Your task to perform on an android device: show emergency info Image 0: 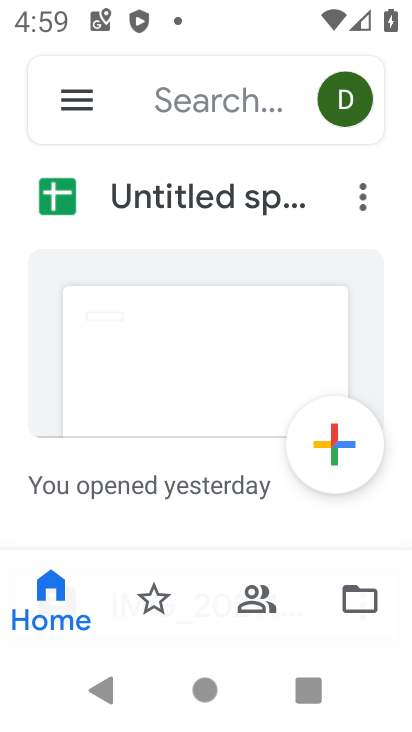
Step 0: press home button
Your task to perform on an android device: show emergency info Image 1: 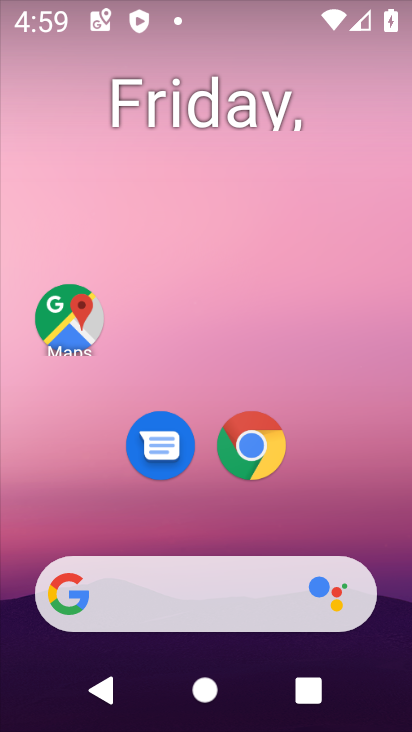
Step 1: drag from (279, 534) to (326, 3)
Your task to perform on an android device: show emergency info Image 2: 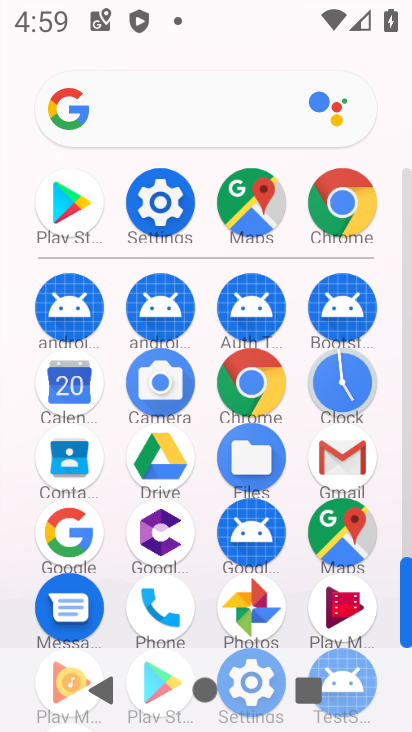
Step 2: click (166, 268)
Your task to perform on an android device: show emergency info Image 3: 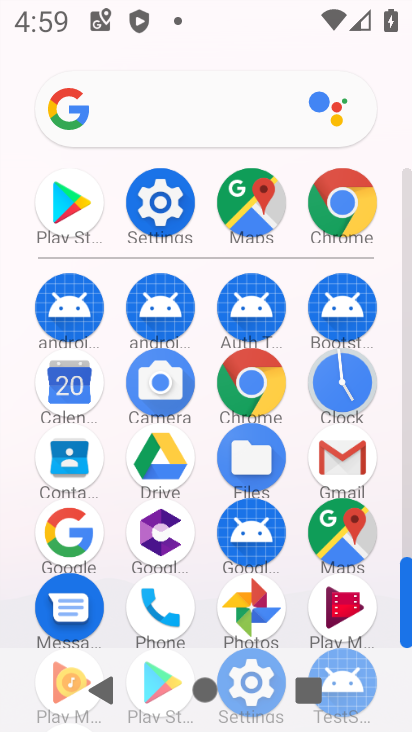
Step 3: click (163, 196)
Your task to perform on an android device: show emergency info Image 4: 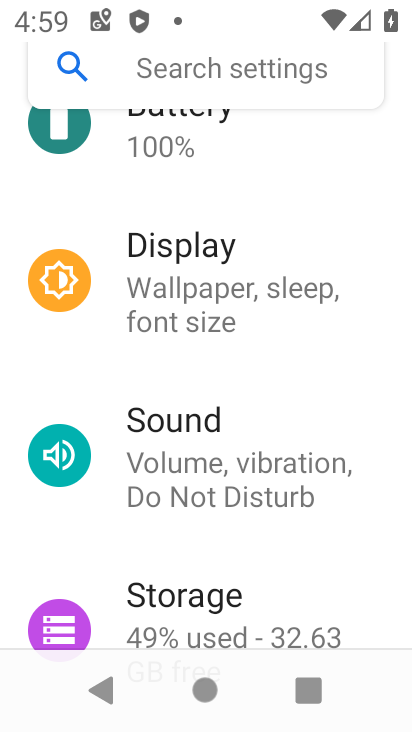
Step 4: drag from (267, 520) to (288, 12)
Your task to perform on an android device: show emergency info Image 5: 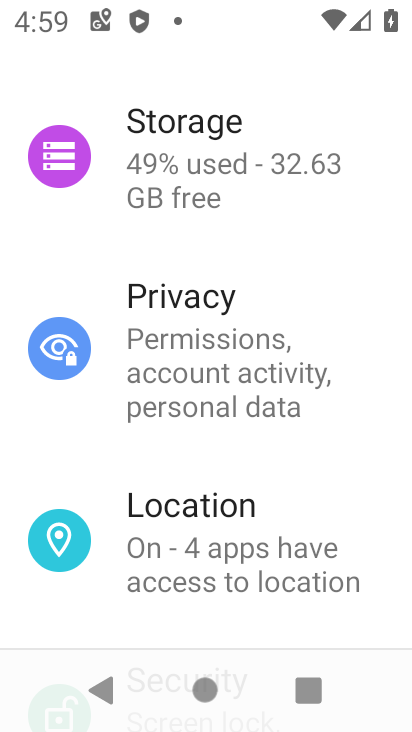
Step 5: drag from (199, 579) to (249, 162)
Your task to perform on an android device: show emergency info Image 6: 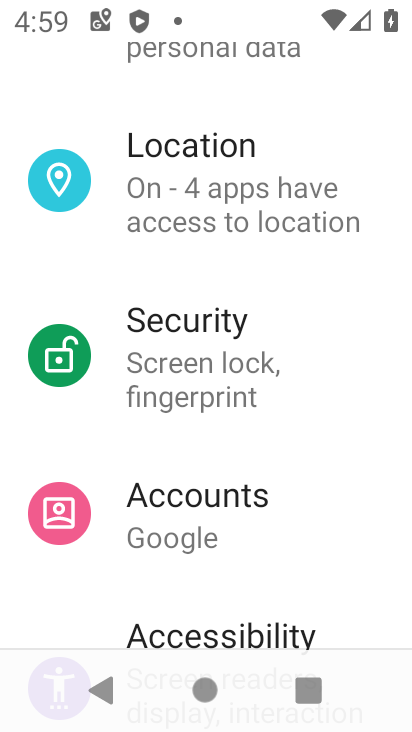
Step 6: drag from (221, 571) to (272, 59)
Your task to perform on an android device: show emergency info Image 7: 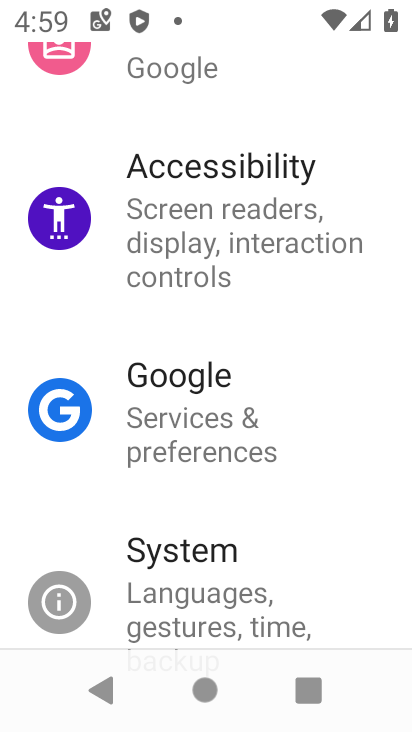
Step 7: drag from (218, 607) to (225, 56)
Your task to perform on an android device: show emergency info Image 8: 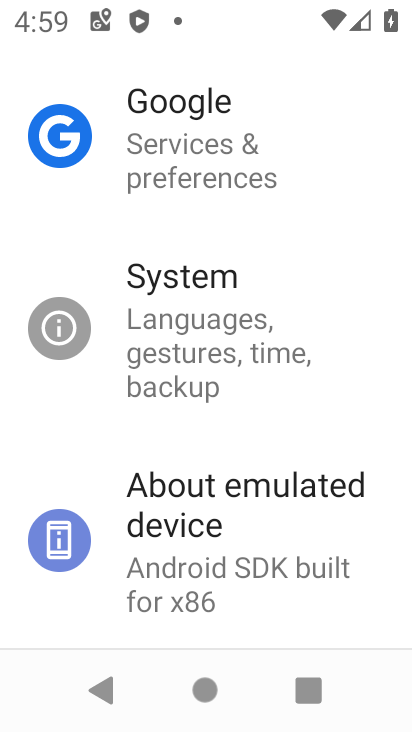
Step 8: click (215, 497)
Your task to perform on an android device: show emergency info Image 9: 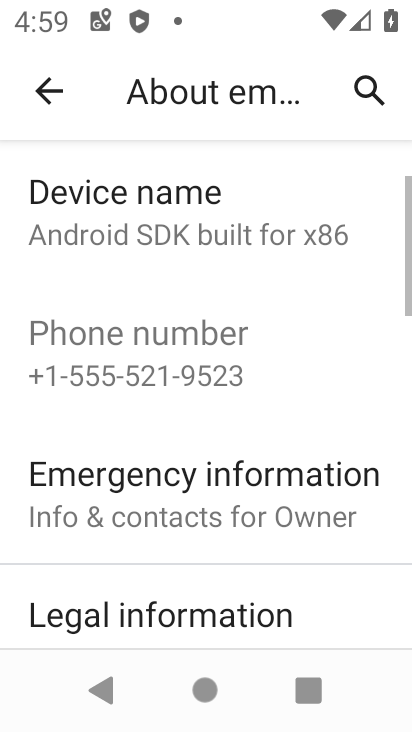
Step 9: click (215, 497)
Your task to perform on an android device: show emergency info Image 10: 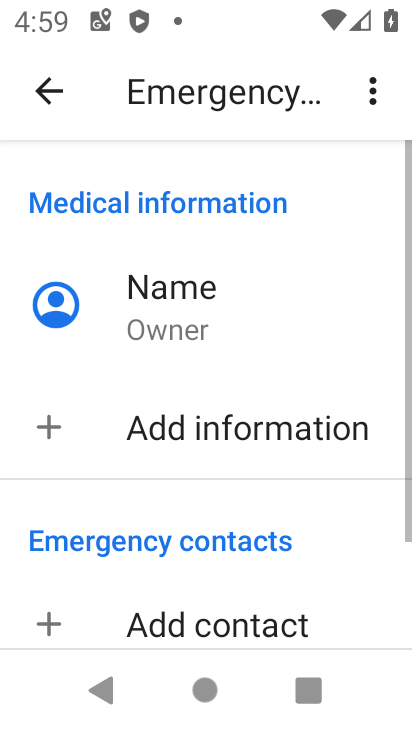
Step 10: task complete